Your task to perform on an android device: Open Maps and search for coffee Image 0: 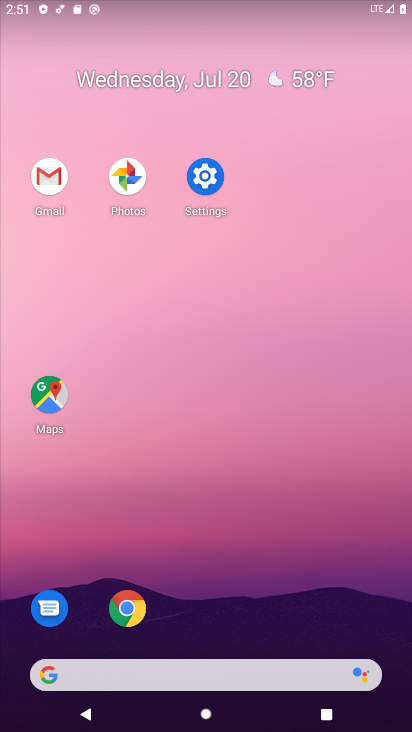
Step 0: click (53, 382)
Your task to perform on an android device: Open Maps and search for coffee Image 1: 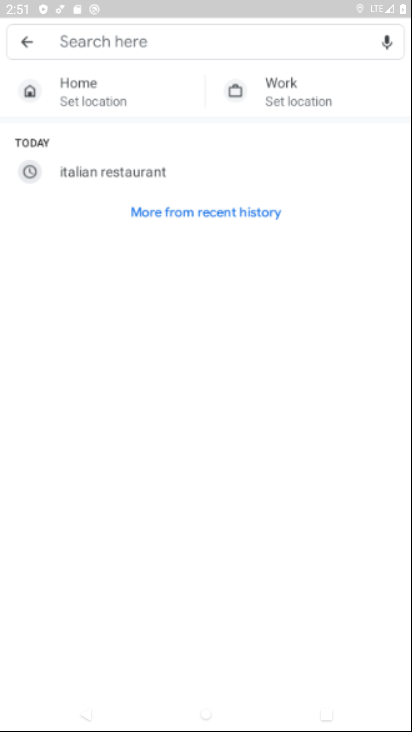
Step 1: click (177, 45)
Your task to perform on an android device: Open Maps and search for coffee Image 2: 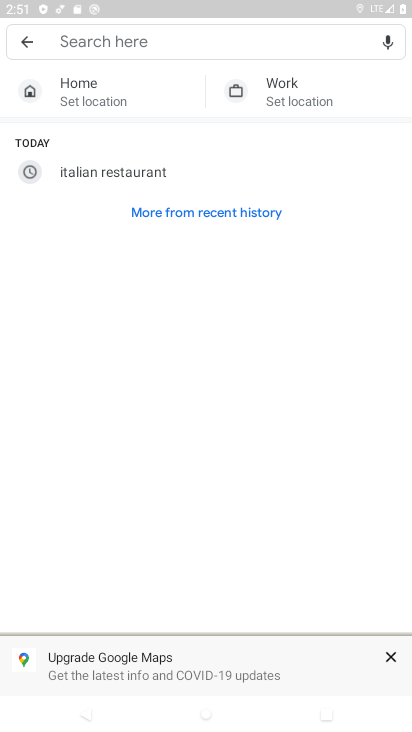
Step 2: type "coffee"
Your task to perform on an android device: Open Maps and search for coffee Image 3: 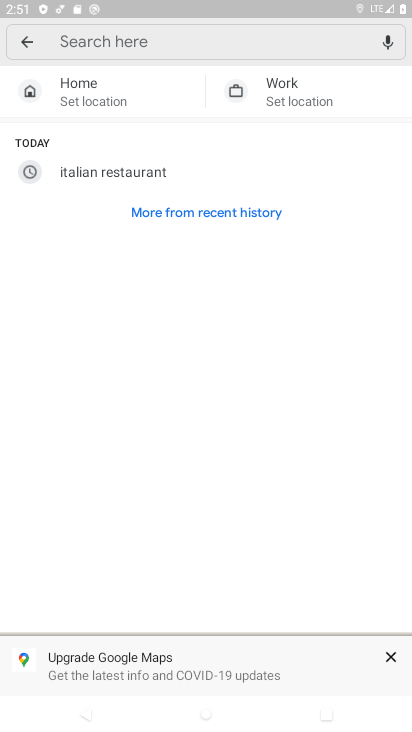
Step 3: task complete